Your task to perform on an android device: turn off location history Image 0: 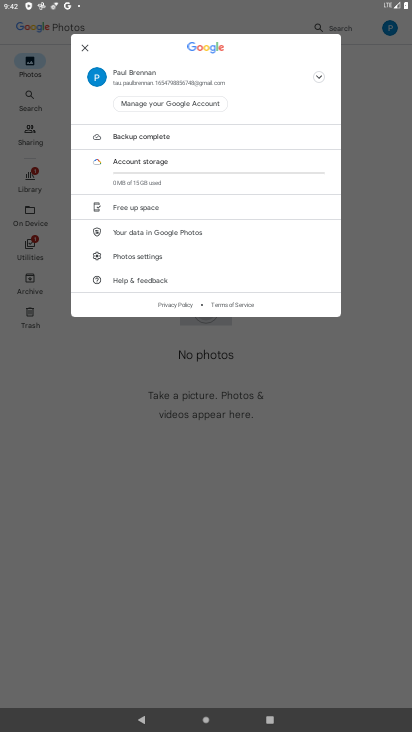
Step 0: press home button
Your task to perform on an android device: turn off location history Image 1: 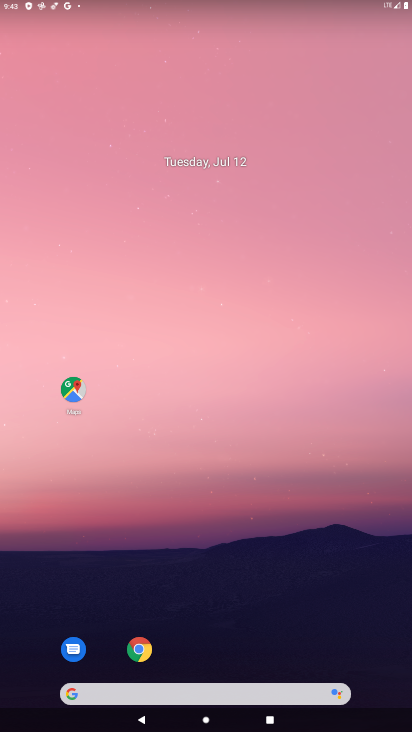
Step 1: drag from (304, 632) to (327, 25)
Your task to perform on an android device: turn off location history Image 2: 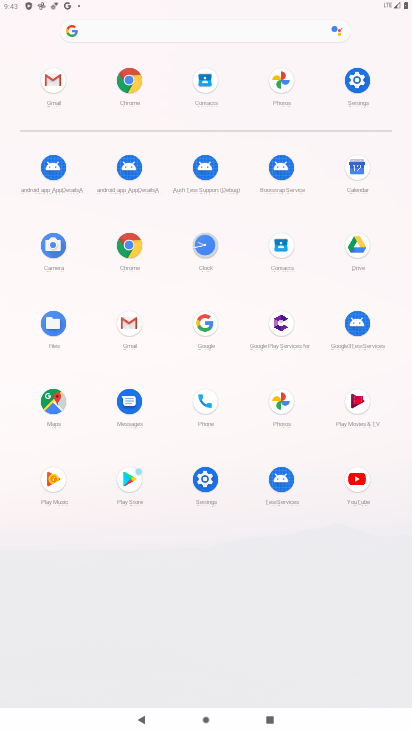
Step 2: click (362, 97)
Your task to perform on an android device: turn off location history Image 3: 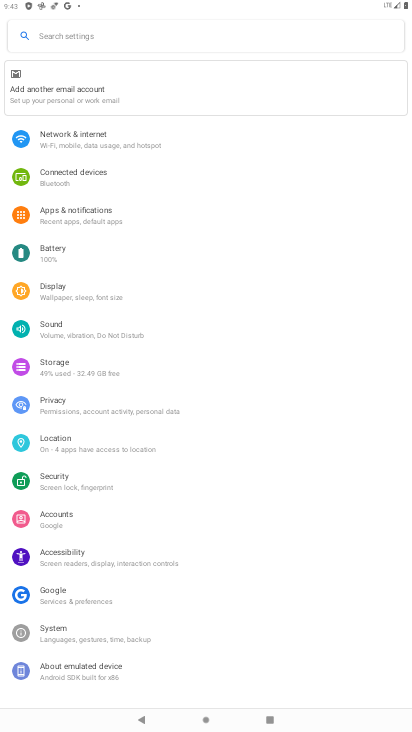
Step 3: click (115, 444)
Your task to perform on an android device: turn off location history Image 4: 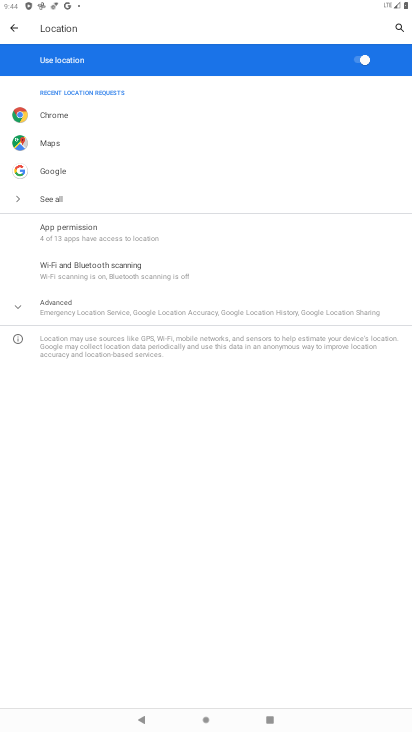
Step 4: click (103, 319)
Your task to perform on an android device: turn off location history Image 5: 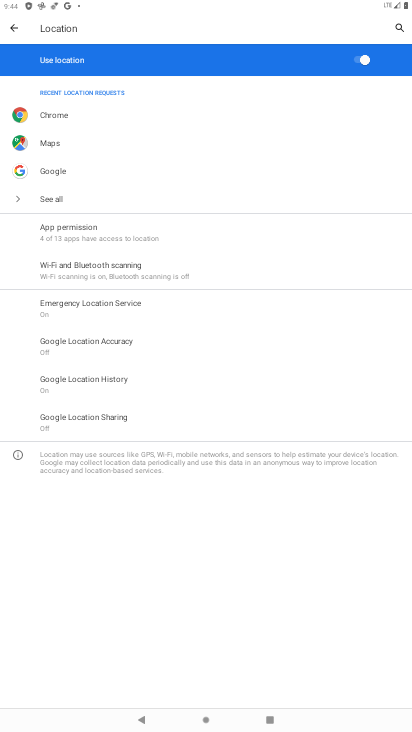
Step 5: click (140, 377)
Your task to perform on an android device: turn off location history Image 6: 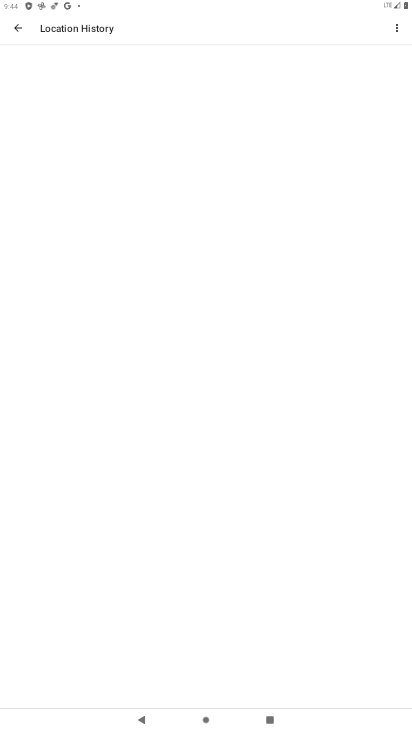
Step 6: task complete